Your task to perform on an android device: set an alarm Image 0: 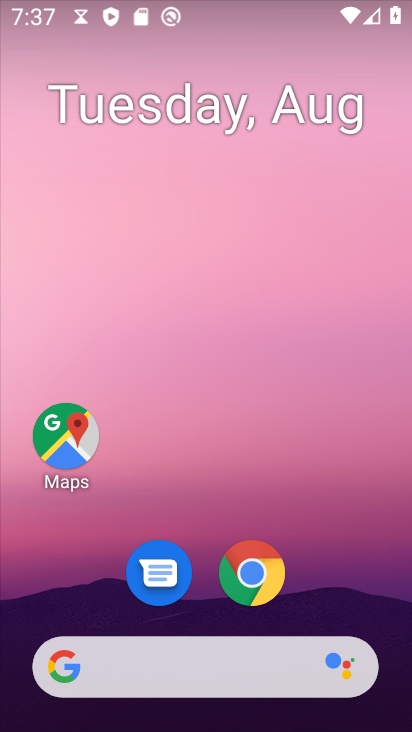
Step 0: press home button
Your task to perform on an android device: set an alarm Image 1: 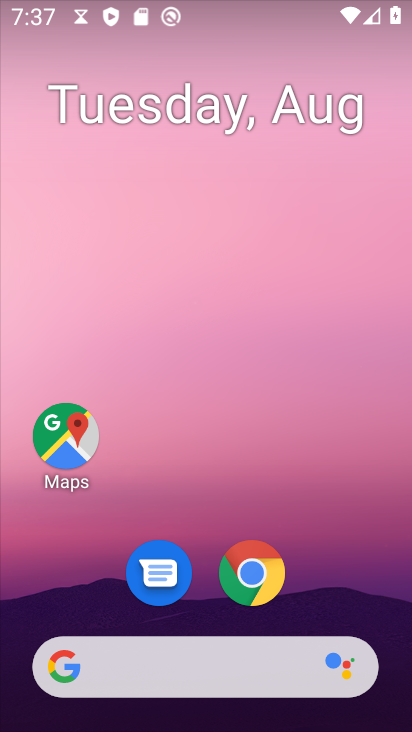
Step 1: drag from (314, 610) to (360, 8)
Your task to perform on an android device: set an alarm Image 2: 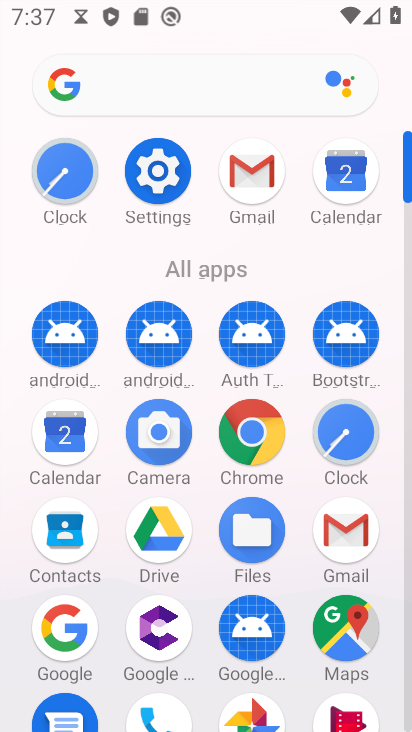
Step 2: click (62, 162)
Your task to perform on an android device: set an alarm Image 3: 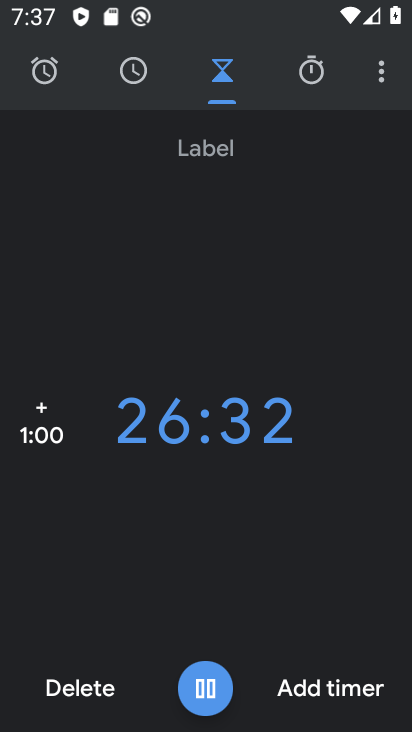
Step 3: click (46, 73)
Your task to perform on an android device: set an alarm Image 4: 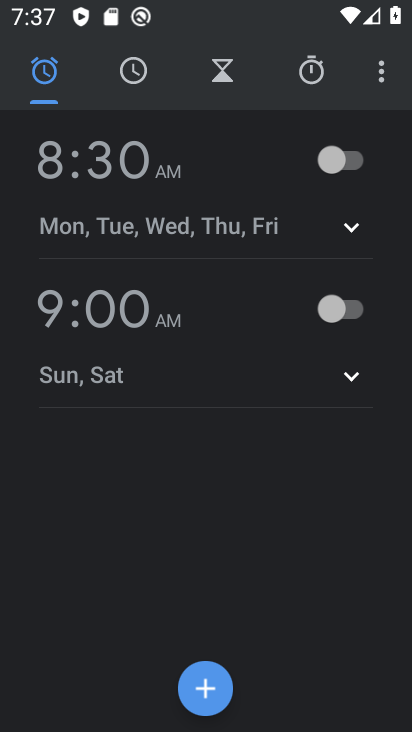
Step 4: click (333, 155)
Your task to perform on an android device: set an alarm Image 5: 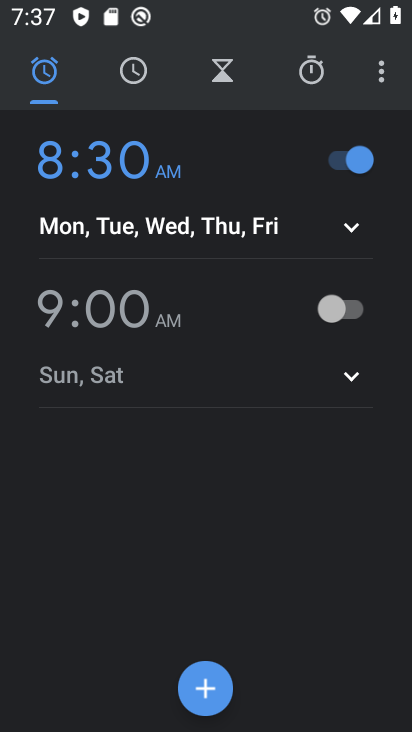
Step 5: click (346, 308)
Your task to perform on an android device: set an alarm Image 6: 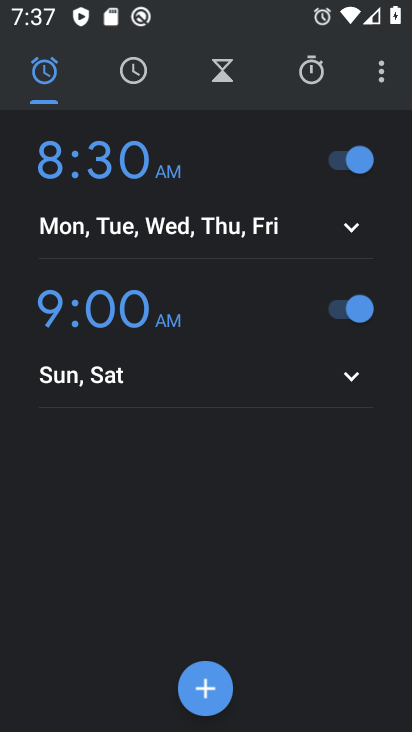
Step 6: task complete